Your task to perform on an android device: Show me popular videos on Youtube Image 0: 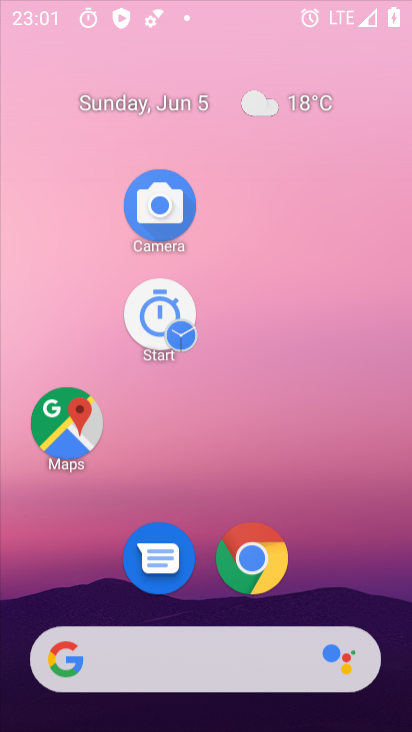
Step 0: click (407, 413)
Your task to perform on an android device: Show me popular videos on Youtube Image 1: 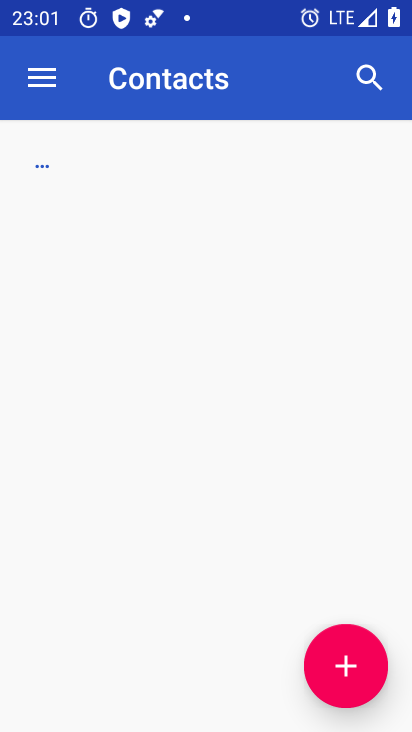
Step 1: drag from (272, 689) to (245, 174)
Your task to perform on an android device: Show me popular videos on Youtube Image 2: 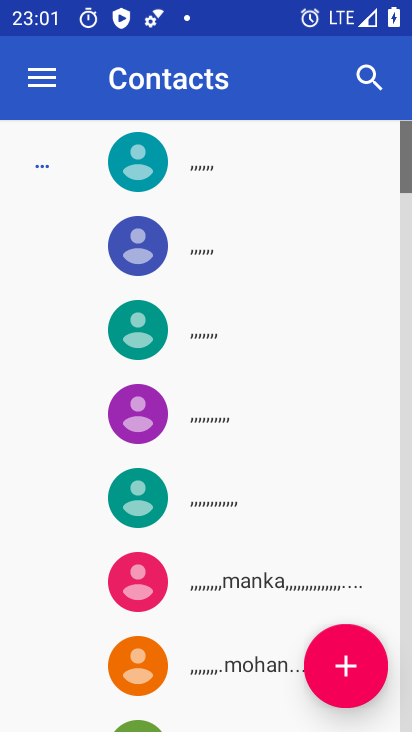
Step 2: press back button
Your task to perform on an android device: Show me popular videos on Youtube Image 3: 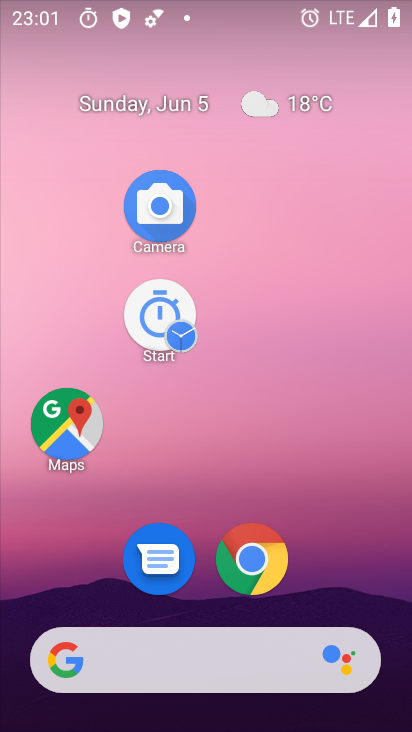
Step 3: drag from (205, 491) to (169, 109)
Your task to perform on an android device: Show me popular videos on Youtube Image 4: 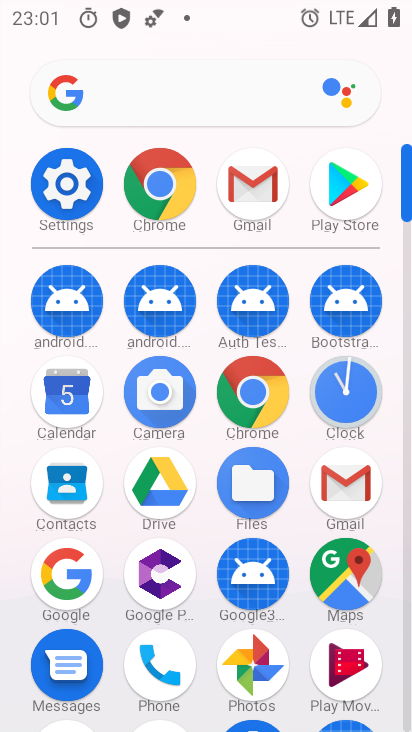
Step 4: drag from (264, 530) to (221, 207)
Your task to perform on an android device: Show me popular videos on Youtube Image 5: 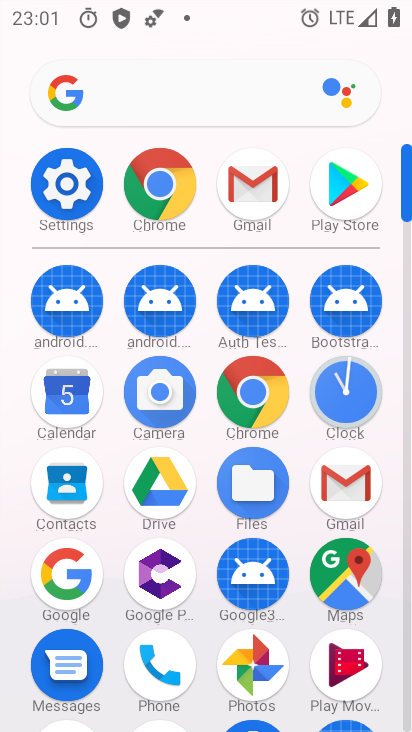
Step 5: drag from (249, 451) to (251, 139)
Your task to perform on an android device: Show me popular videos on Youtube Image 6: 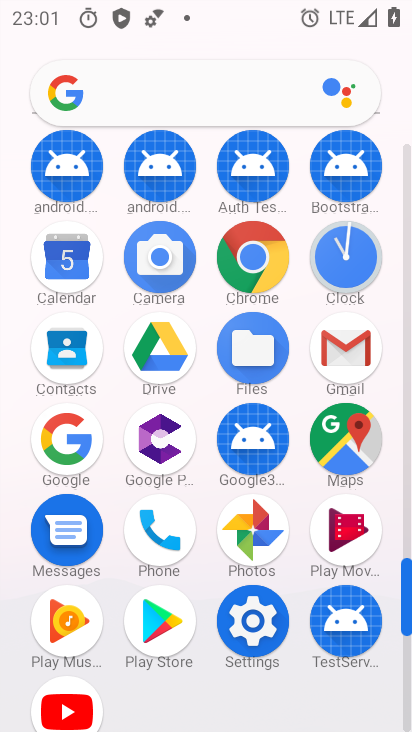
Step 6: drag from (308, 503) to (320, 172)
Your task to perform on an android device: Show me popular videos on Youtube Image 7: 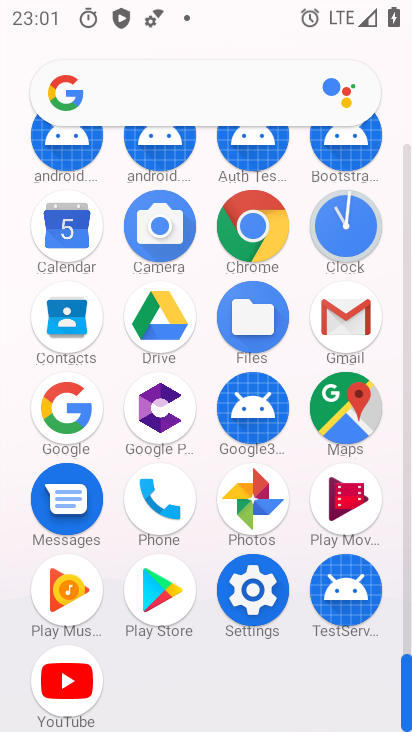
Step 7: click (62, 675)
Your task to perform on an android device: Show me popular videos on Youtube Image 8: 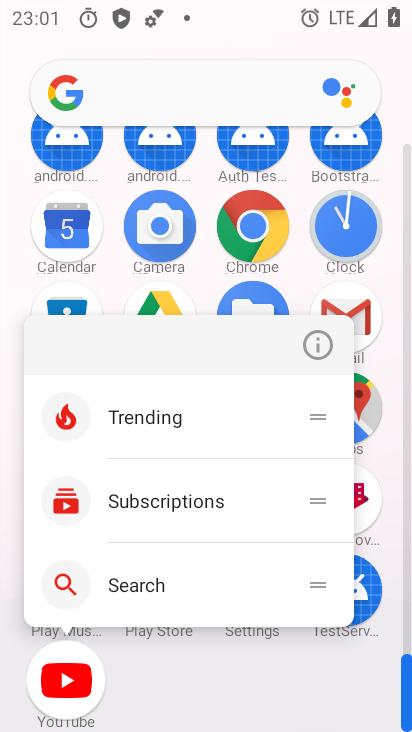
Step 8: click (69, 664)
Your task to perform on an android device: Show me popular videos on Youtube Image 9: 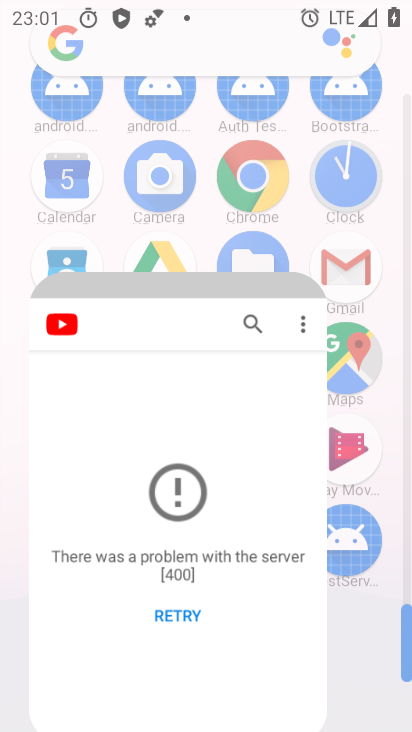
Step 9: click (49, 668)
Your task to perform on an android device: Show me popular videos on Youtube Image 10: 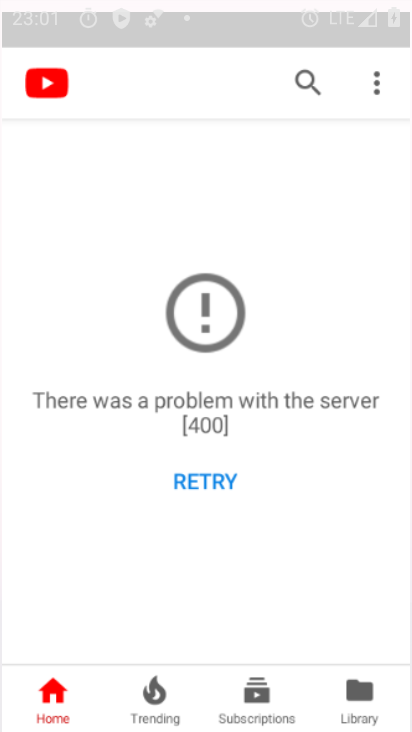
Step 10: click (40, 672)
Your task to perform on an android device: Show me popular videos on Youtube Image 11: 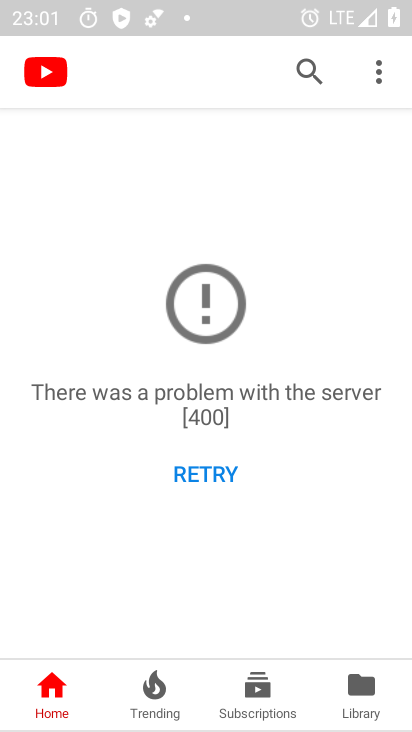
Step 11: task complete